Your task to perform on an android device: What's the weather going to be this weekend? Image 0: 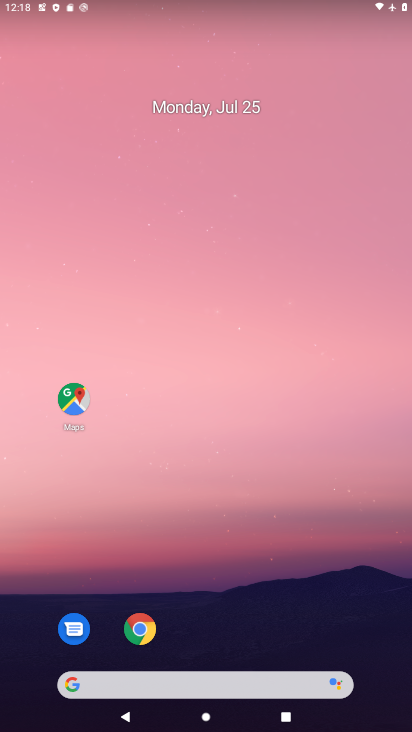
Step 0: drag from (274, 658) to (196, 70)
Your task to perform on an android device: What's the weather going to be this weekend? Image 1: 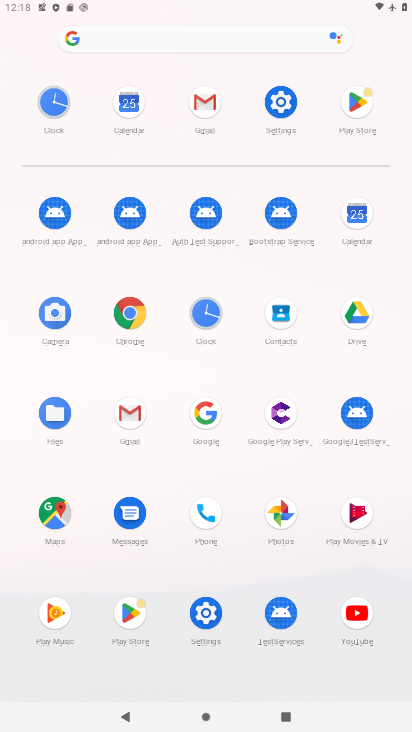
Step 1: click (121, 104)
Your task to perform on an android device: What's the weather going to be this weekend? Image 2: 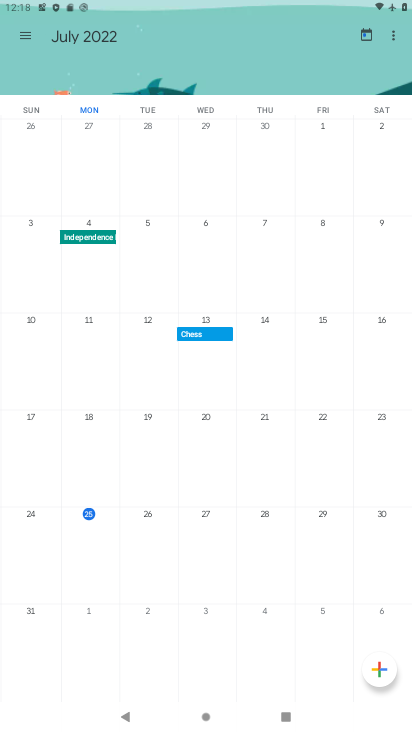
Step 2: task complete